Your task to perform on an android device: Search for sushi restaurants on Maps Image 0: 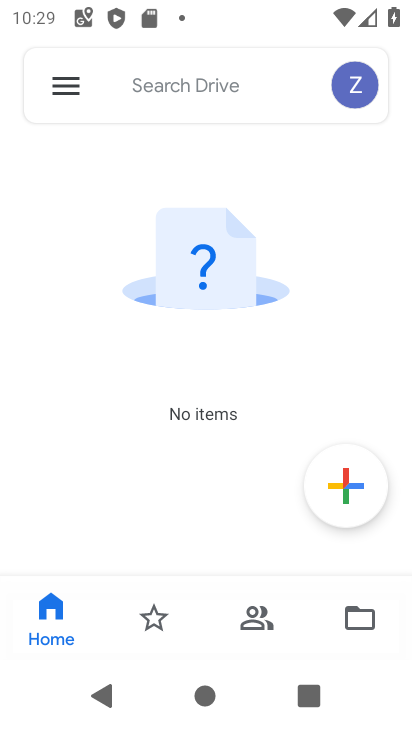
Step 0: press home button
Your task to perform on an android device: Search for sushi restaurants on Maps Image 1: 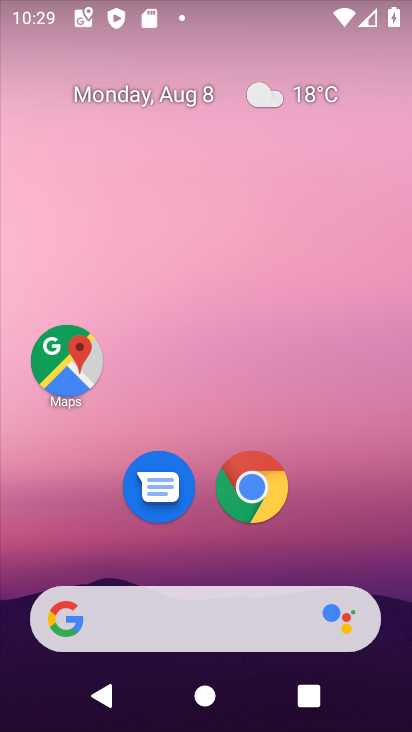
Step 1: drag from (205, 560) to (196, 66)
Your task to perform on an android device: Search for sushi restaurants on Maps Image 2: 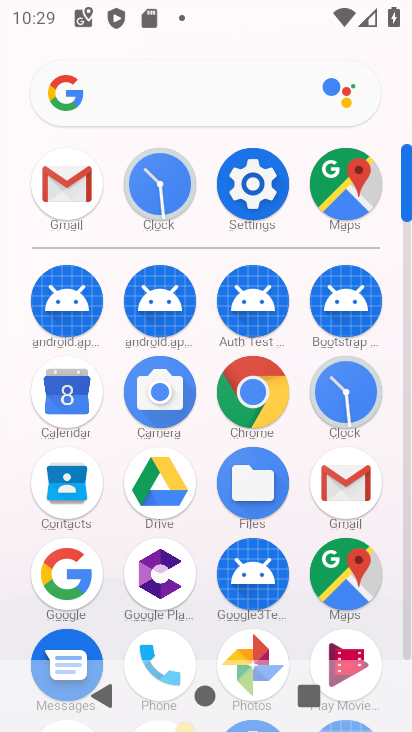
Step 2: click (351, 580)
Your task to perform on an android device: Search for sushi restaurants on Maps Image 3: 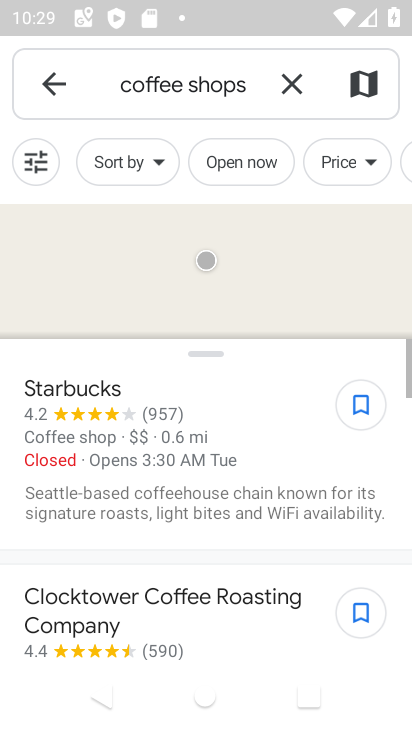
Step 3: click (286, 78)
Your task to perform on an android device: Search for sushi restaurants on Maps Image 4: 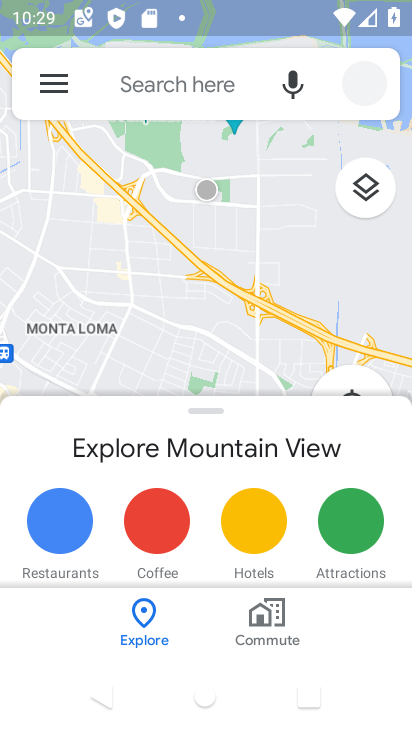
Step 4: click (169, 85)
Your task to perform on an android device: Search for sushi restaurants on Maps Image 5: 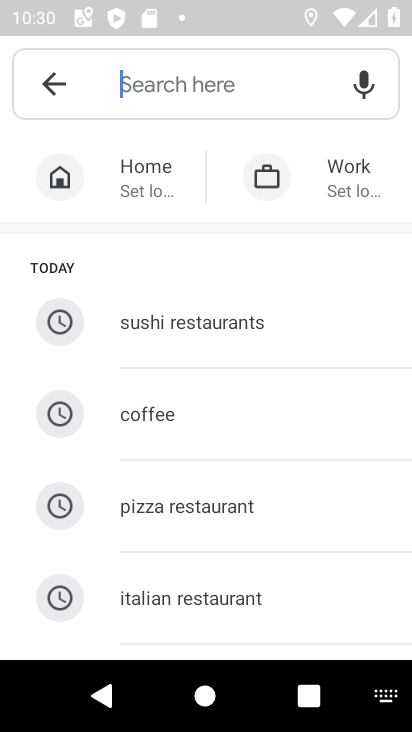
Step 5: type "sushi restaurants"
Your task to perform on an android device: Search for sushi restaurants on Maps Image 6: 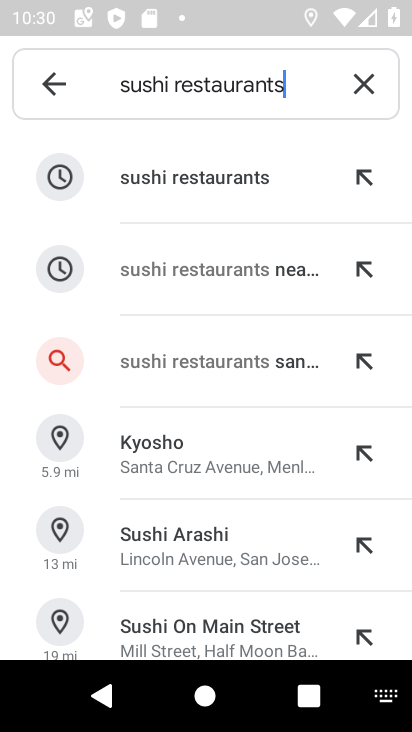
Step 6: click (251, 169)
Your task to perform on an android device: Search for sushi restaurants on Maps Image 7: 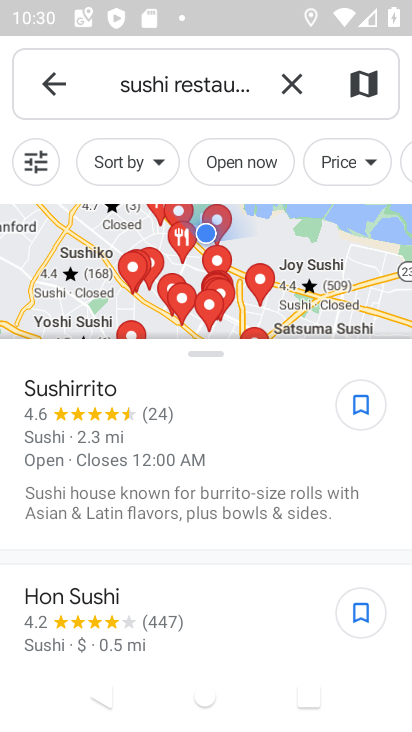
Step 7: task complete